Your task to perform on an android device: turn pop-ups off in chrome Image 0: 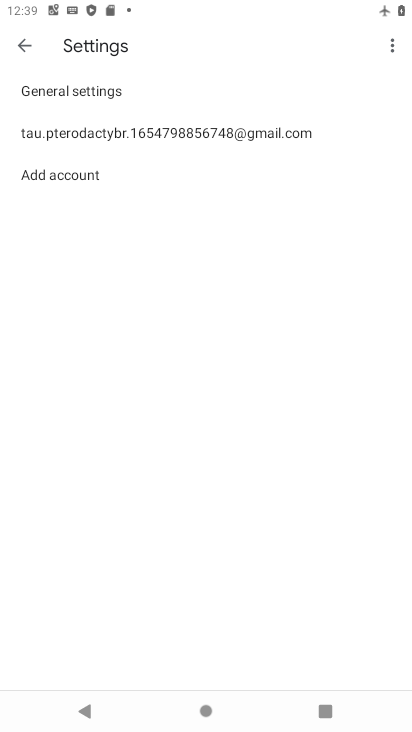
Step 0: press home button
Your task to perform on an android device: turn pop-ups off in chrome Image 1: 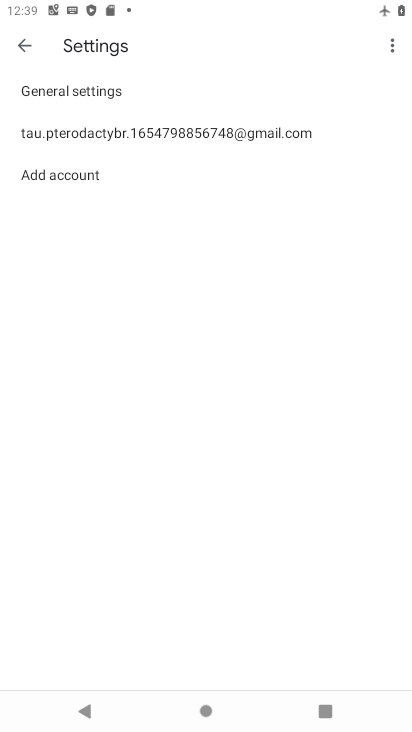
Step 1: press home button
Your task to perform on an android device: turn pop-ups off in chrome Image 2: 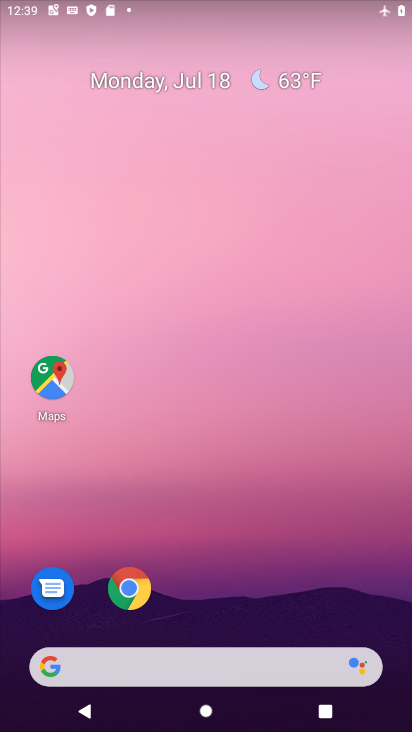
Step 2: click (126, 594)
Your task to perform on an android device: turn pop-ups off in chrome Image 3: 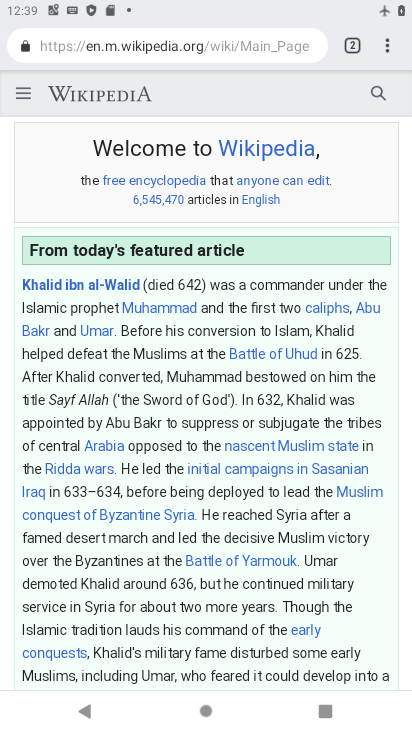
Step 3: click (387, 49)
Your task to perform on an android device: turn pop-ups off in chrome Image 4: 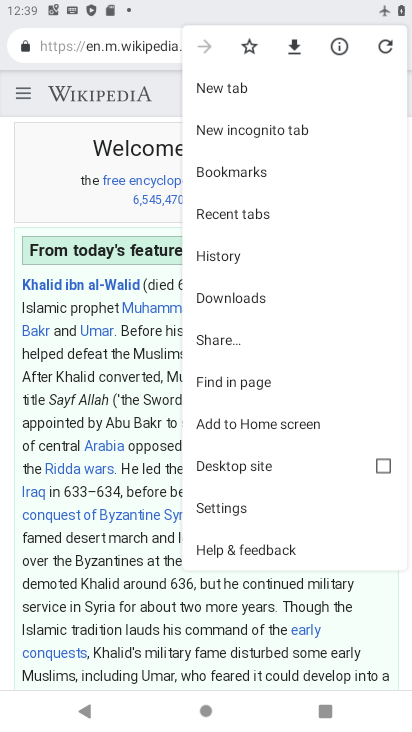
Step 4: click (221, 505)
Your task to perform on an android device: turn pop-ups off in chrome Image 5: 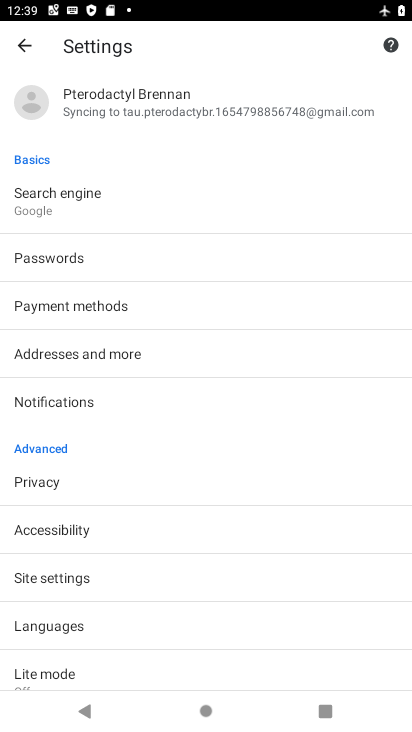
Step 5: click (53, 573)
Your task to perform on an android device: turn pop-ups off in chrome Image 6: 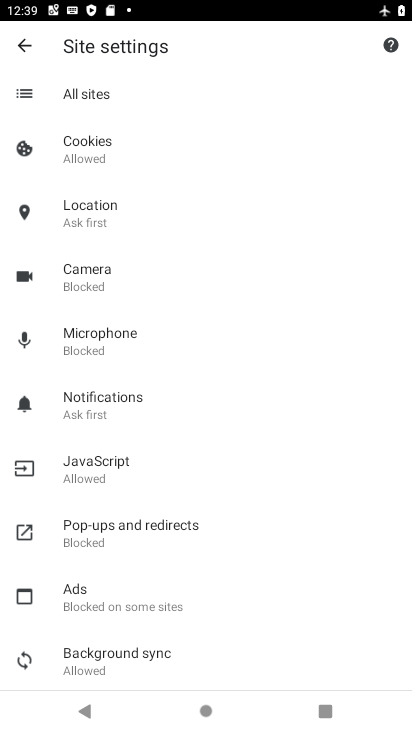
Step 6: click (91, 522)
Your task to perform on an android device: turn pop-ups off in chrome Image 7: 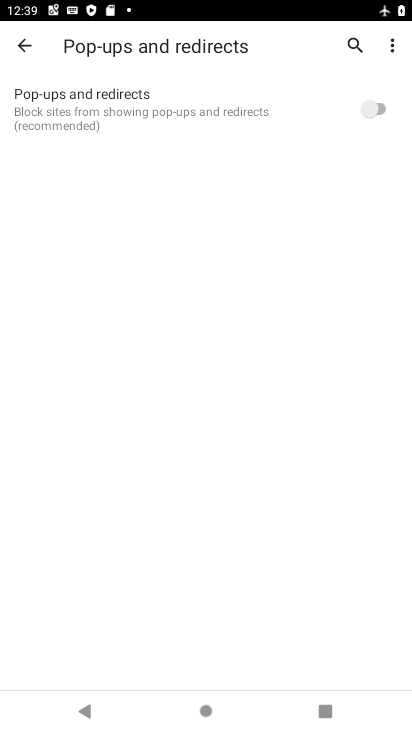
Step 7: task complete